Your task to perform on an android device: Go to sound settings Image 0: 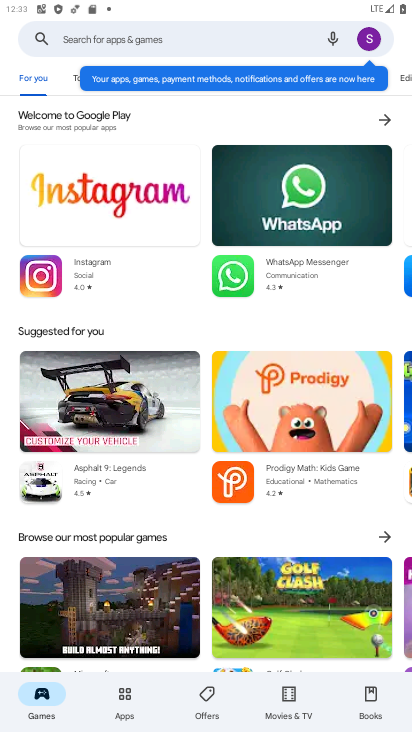
Step 0: press home button
Your task to perform on an android device: Go to sound settings Image 1: 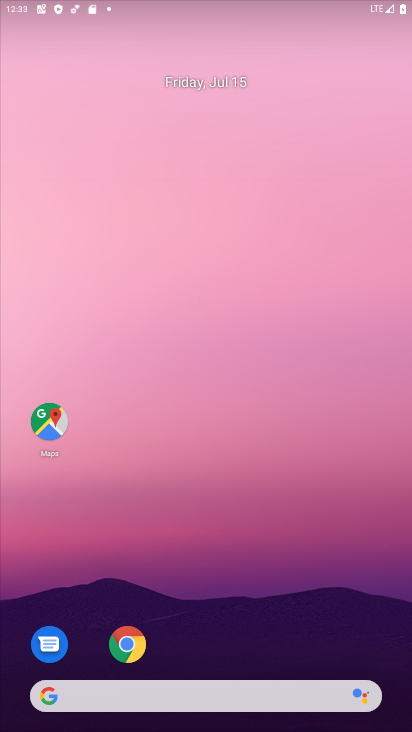
Step 1: drag from (29, 541) to (233, 50)
Your task to perform on an android device: Go to sound settings Image 2: 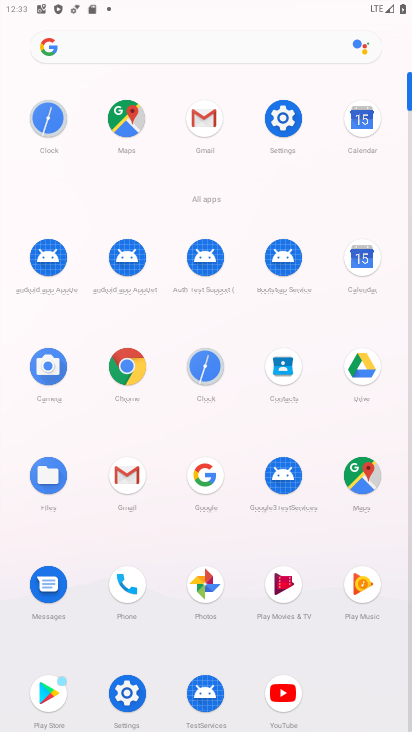
Step 2: click (276, 126)
Your task to perform on an android device: Go to sound settings Image 3: 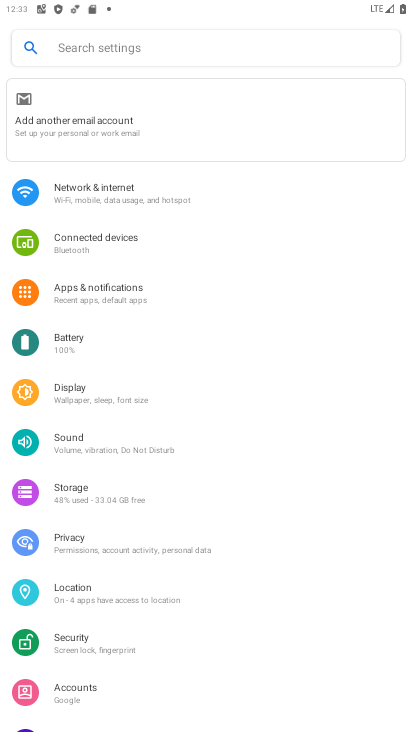
Step 3: click (118, 446)
Your task to perform on an android device: Go to sound settings Image 4: 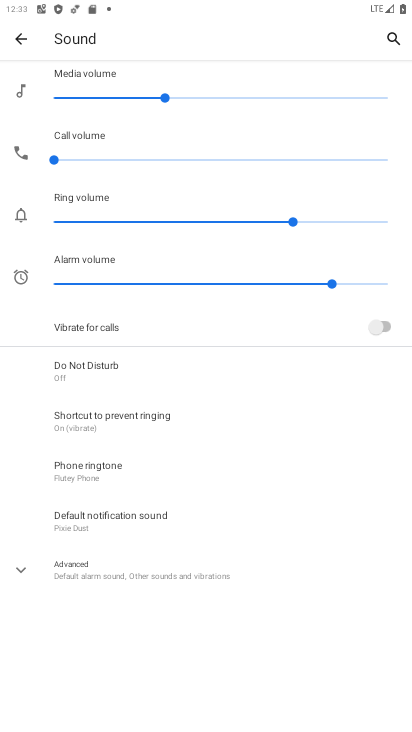
Step 4: task complete